Your task to perform on an android device: turn off improve location accuracy Image 0: 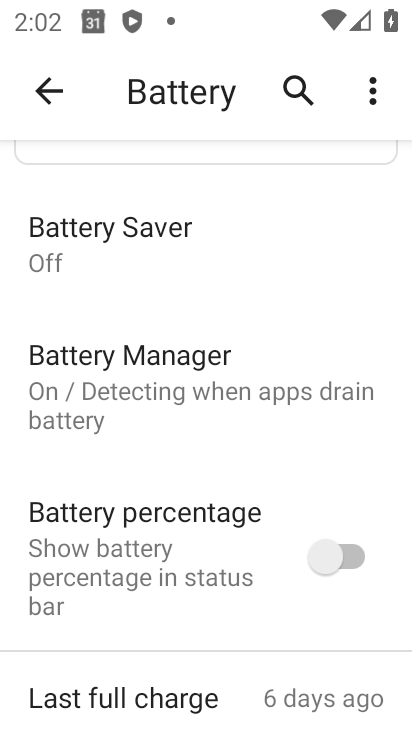
Step 0: drag from (205, 609) to (308, 230)
Your task to perform on an android device: turn off improve location accuracy Image 1: 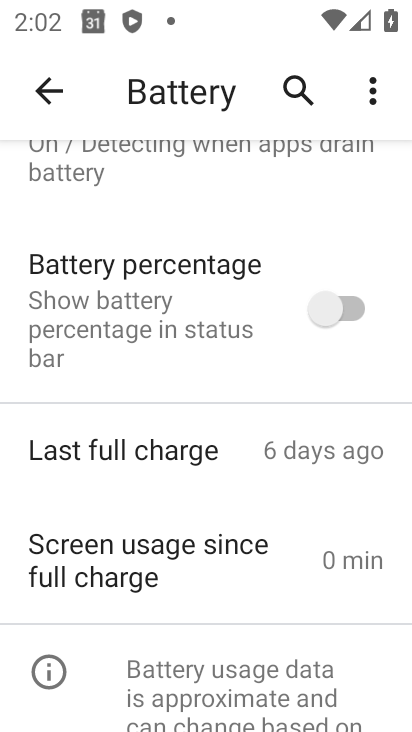
Step 1: press home button
Your task to perform on an android device: turn off improve location accuracy Image 2: 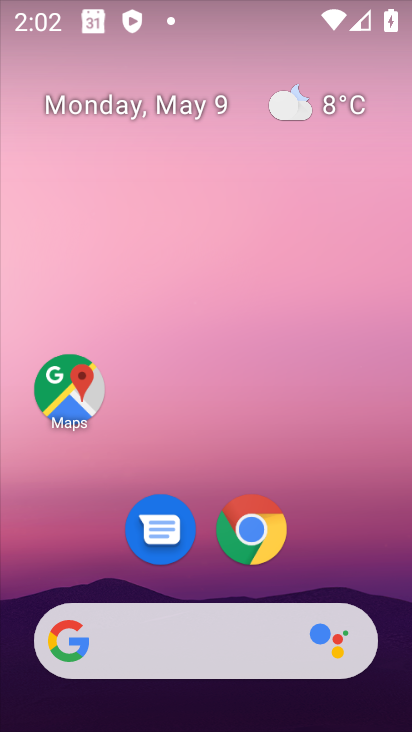
Step 2: drag from (205, 698) to (285, 36)
Your task to perform on an android device: turn off improve location accuracy Image 3: 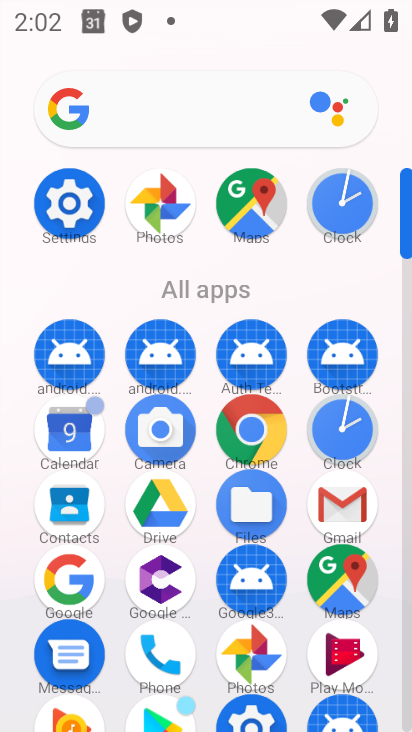
Step 3: click (51, 196)
Your task to perform on an android device: turn off improve location accuracy Image 4: 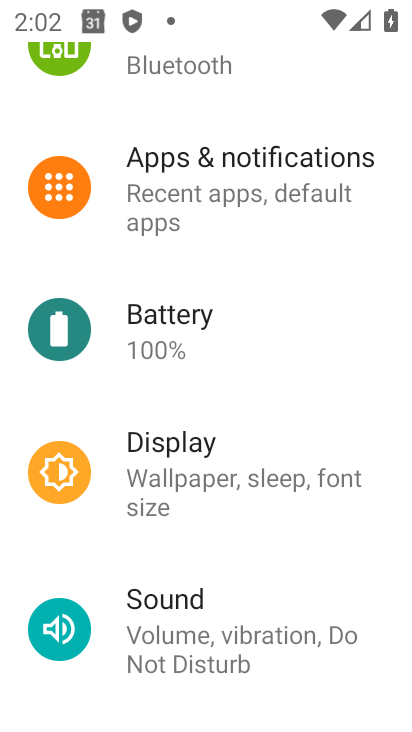
Step 4: drag from (277, 653) to (301, 221)
Your task to perform on an android device: turn off improve location accuracy Image 5: 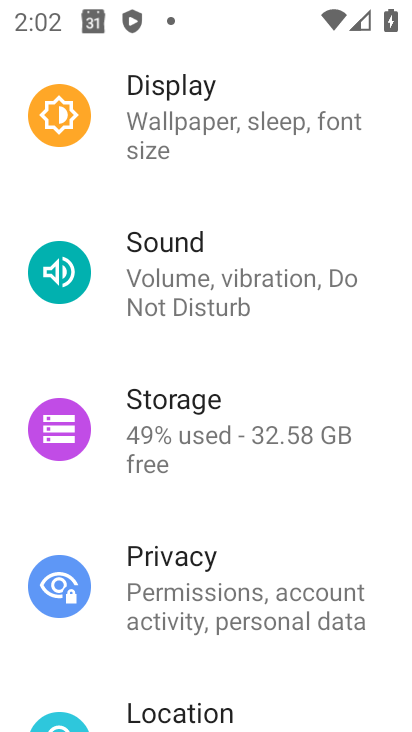
Step 5: drag from (241, 661) to (285, 153)
Your task to perform on an android device: turn off improve location accuracy Image 6: 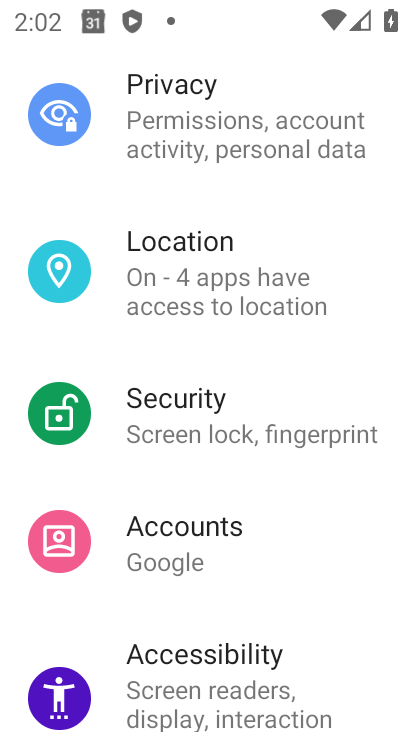
Step 6: click (272, 294)
Your task to perform on an android device: turn off improve location accuracy Image 7: 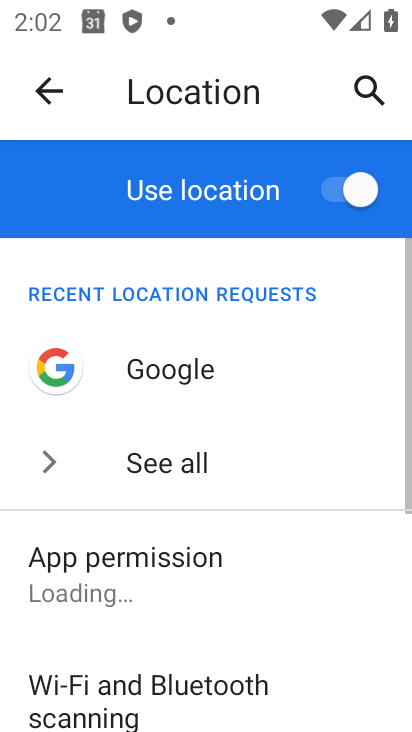
Step 7: drag from (302, 672) to (341, 224)
Your task to perform on an android device: turn off improve location accuracy Image 8: 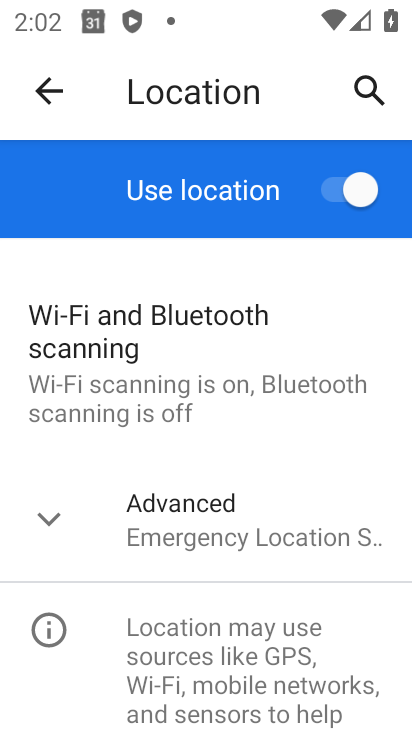
Step 8: click (222, 538)
Your task to perform on an android device: turn off improve location accuracy Image 9: 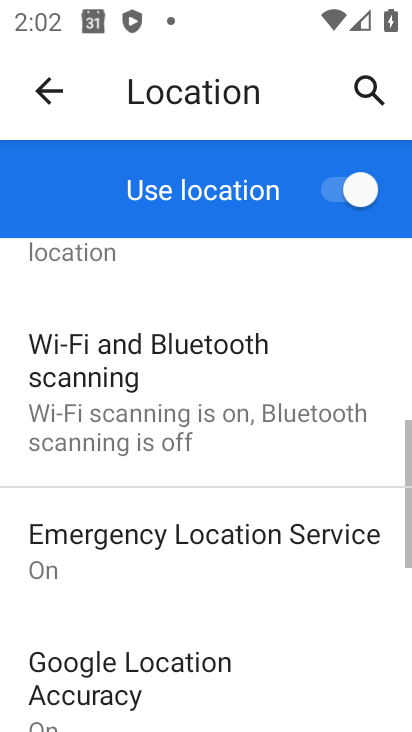
Step 9: drag from (264, 703) to (281, 389)
Your task to perform on an android device: turn off improve location accuracy Image 10: 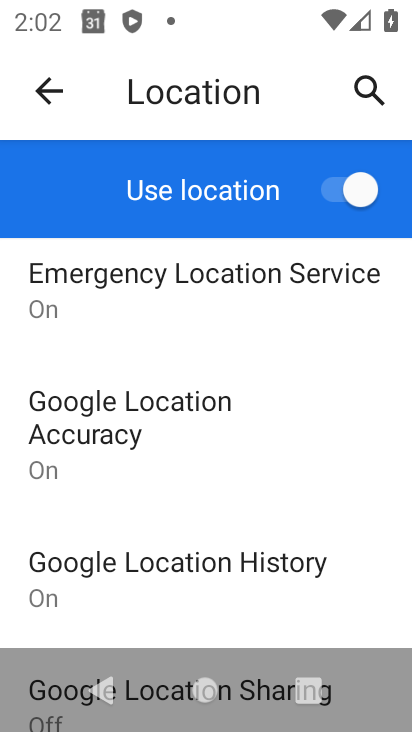
Step 10: click (97, 462)
Your task to perform on an android device: turn off improve location accuracy Image 11: 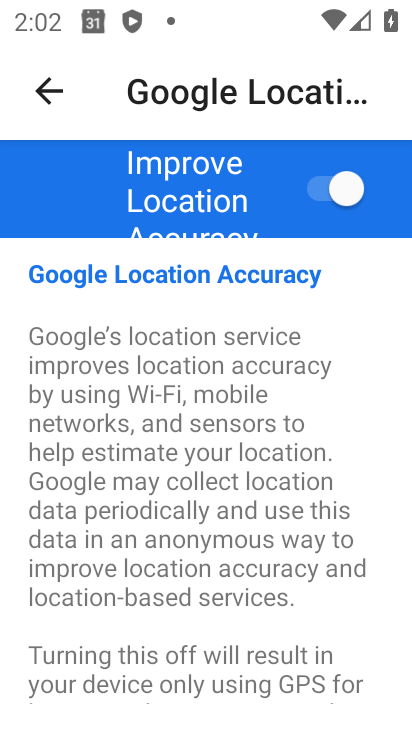
Step 11: click (338, 189)
Your task to perform on an android device: turn off improve location accuracy Image 12: 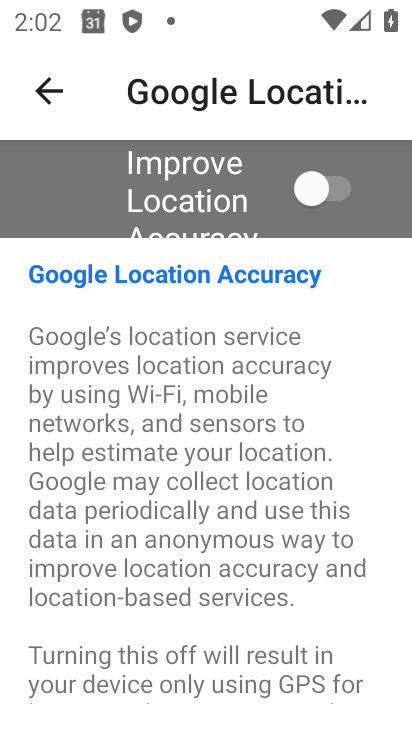
Step 12: task complete